Your task to perform on an android device: turn off sleep mode Image 0: 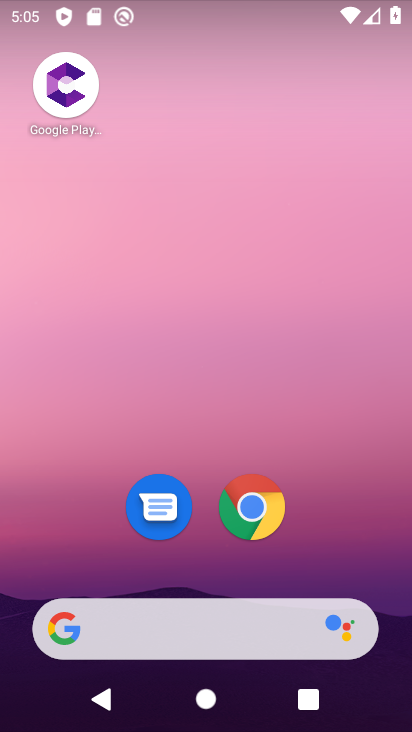
Step 0: drag from (295, 528) to (315, 79)
Your task to perform on an android device: turn off sleep mode Image 1: 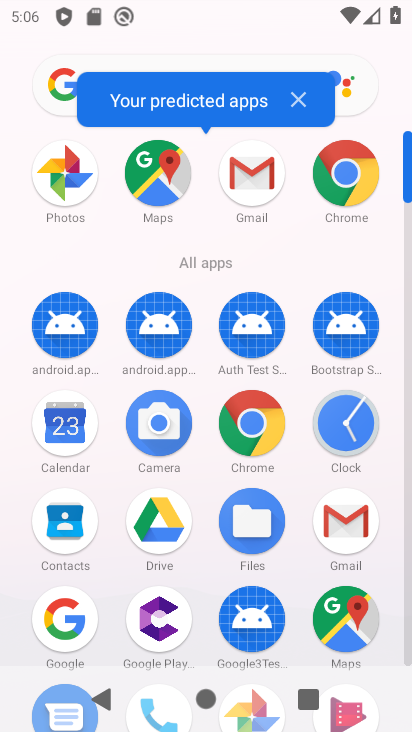
Step 1: drag from (205, 354) to (232, 150)
Your task to perform on an android device: turn off sleep mode Image 2: 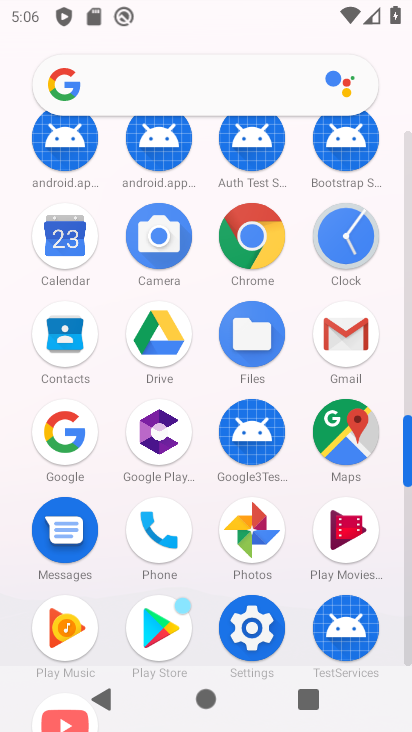
Step 2: click (247, 632)
Your task to perform on an android device: turn off sleep mode Image 3: 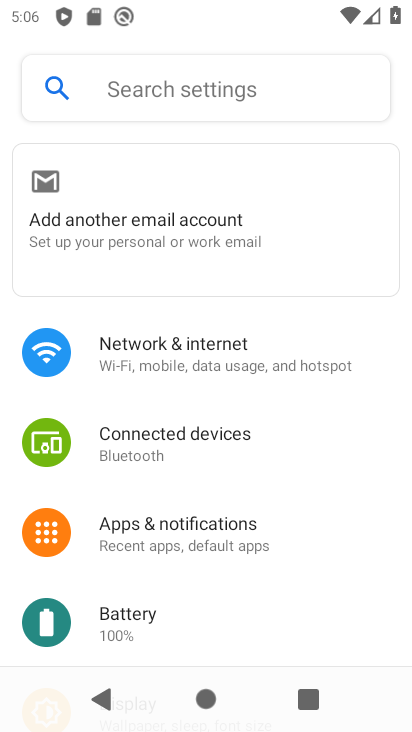
Step 3: drag from (284, 606) to (301, 272)
Your task to perform on an android device: turn off sleep mode Image 4: 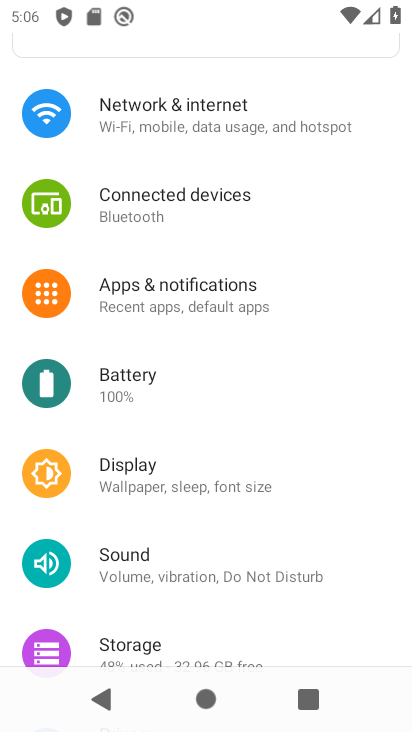
Step 4: click (207, 487)
Your task to perform on an android device: turn off sleep mode Image 5: 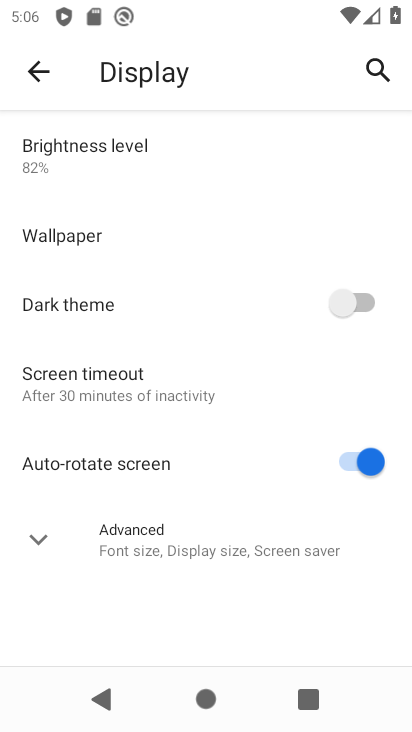
Step 5: task complete